Your task to perform on an android device: turn off notifications settings in the gmail app Image 0: 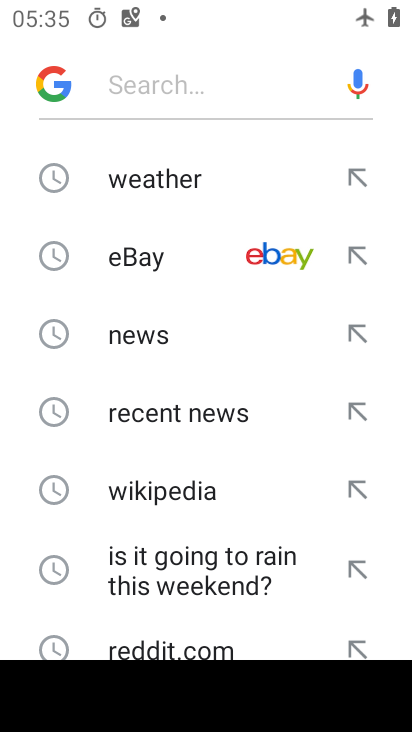
Step 0: press home button
Your task to perform on an android device: turn off notifications settings in the gmail app Image 1: 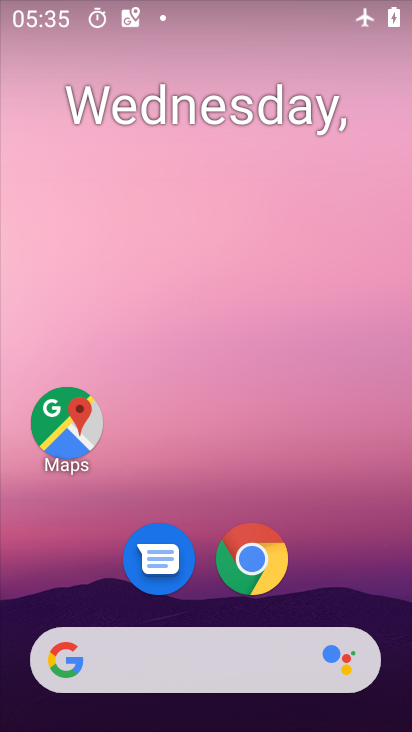
Step 1: drag from (298, 381) to (235, 88)
Your task to perform on an android device: turn off notifications settings in the gmail app Image 2: 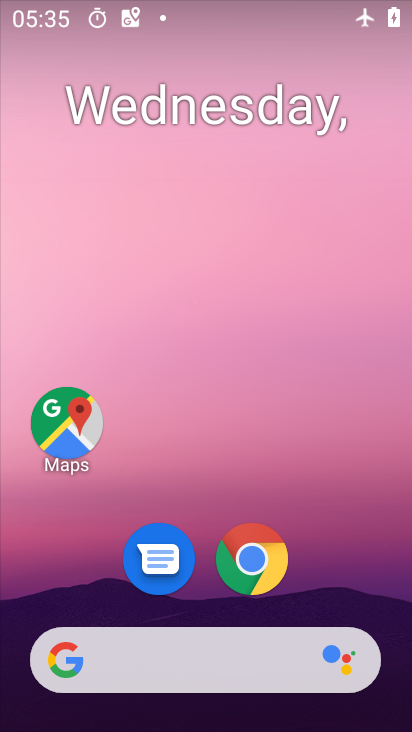
Step 2: drag from (343, 537) to (160, 25)
Your task to perform on an android device: turn off notifications settings in the gmail app Image 3: 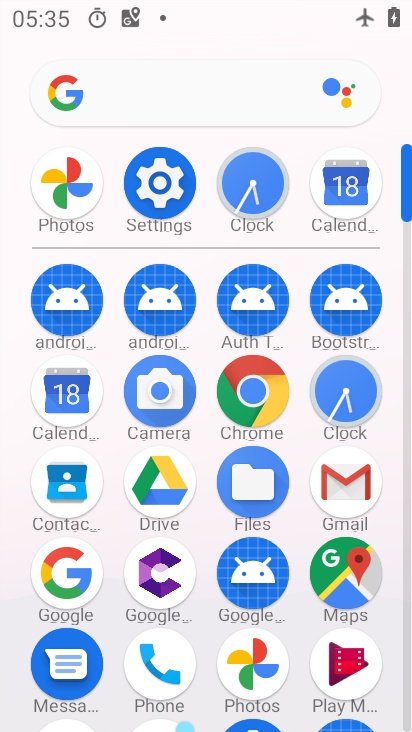
Step 3: click (345, 479)
Your task to perform on an android device: turn off notifications settings in the gmail app Image 4: 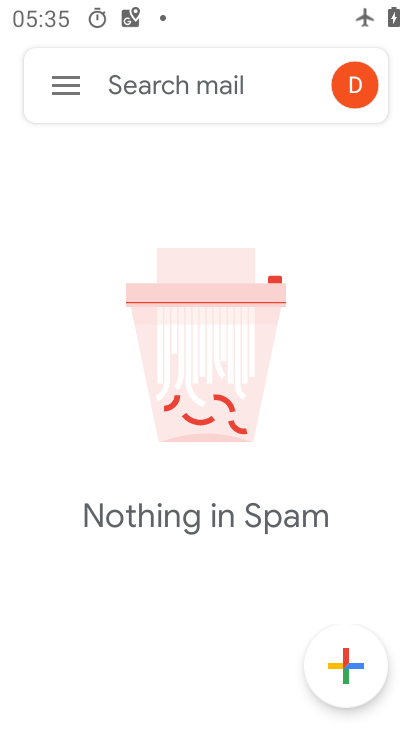
Step 4: click (72, 80)
Your task to perform on an android device: turn off notifications settings in the gmail app Image 5: 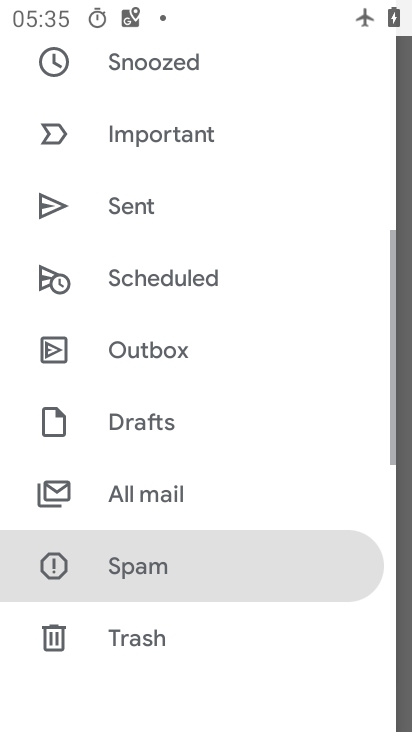
Step 5: drag from (178, 637) to (175, 109)
Your task to perform on an android device: turn off notifications settings in the gmail app Image 6: 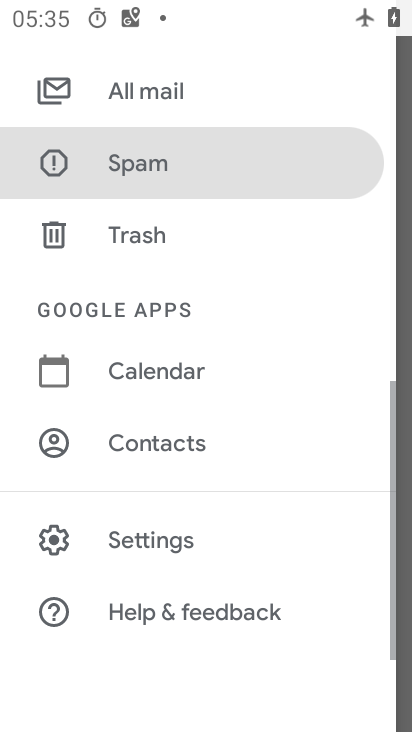
Step 6: click (176, 557)
Your task to perform on an android device: turn off notifications settings in the gmail app Image 7: 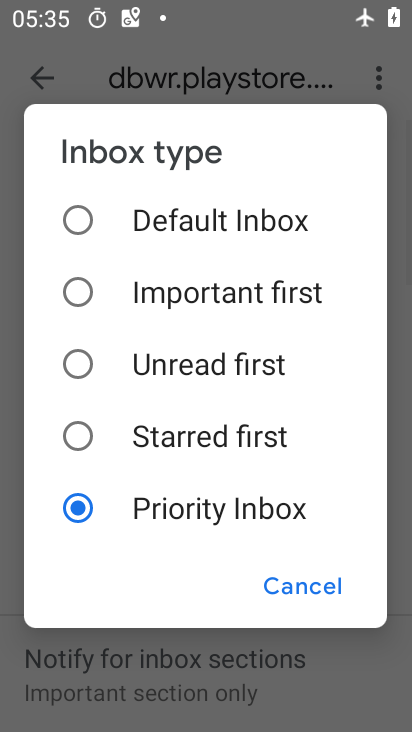
Step 7: click (310, 577)
Your task to perform on an android device: turn off notifications settings in the gmail app Image 8: 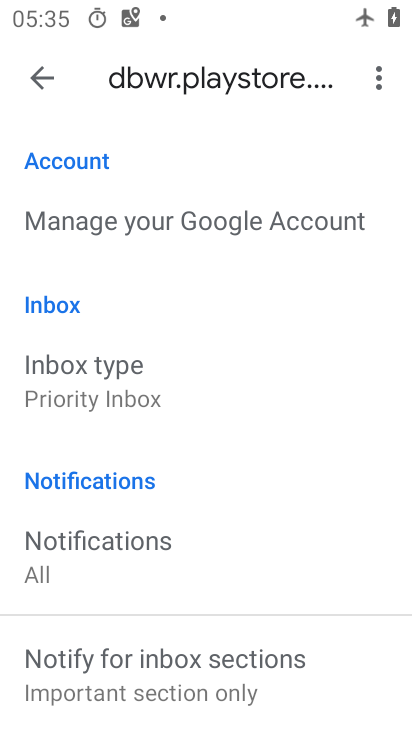
Step 8: click (106, 534)
Your task to perform on an android device: turn off notifications settings in the gmail app Image 9: 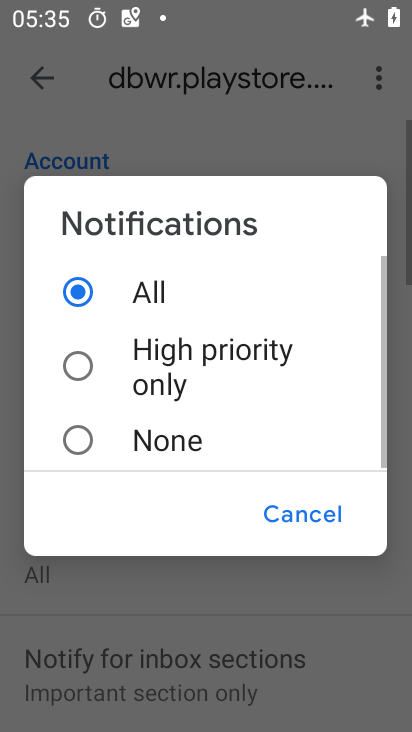
Step 9: click (146, 440)
Your task to perform on an android device: turn off notifications settings in the gmail app Image 10: 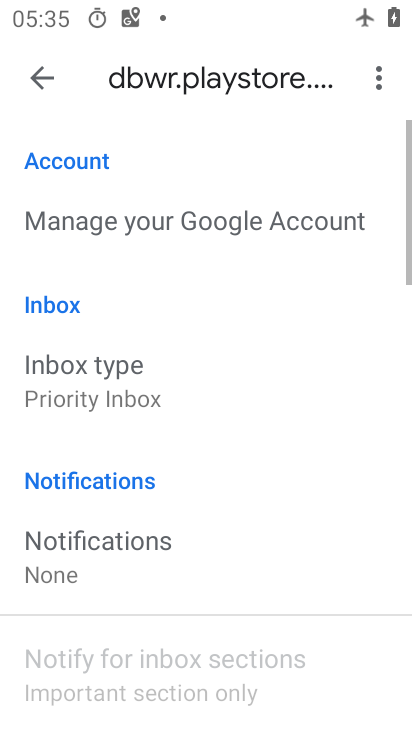
Step 10: task complete